Your task to perform on an android device: What's on my calendar tomorrow? Image 0: 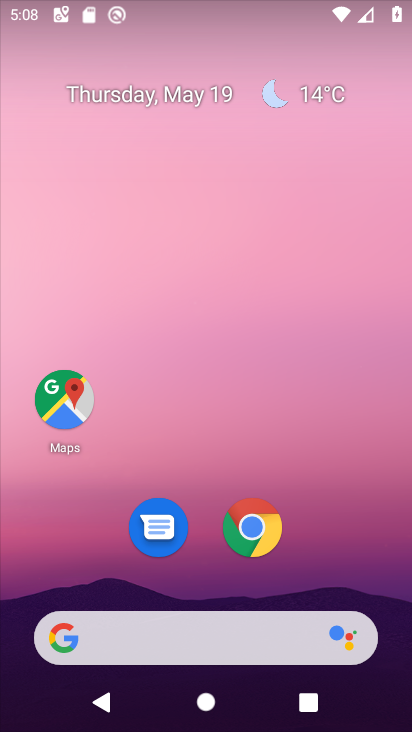
Step 0: click (166, 88)
Your task to perform on an android device: What's on my calendar tomorrow? Image 1: 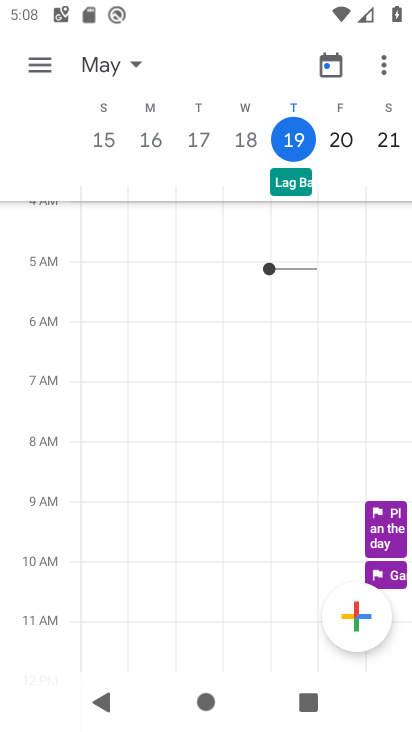
Step 1: task complete